Your task to perform on an android device: Search for Mexican restaurants on Maps Image 0: 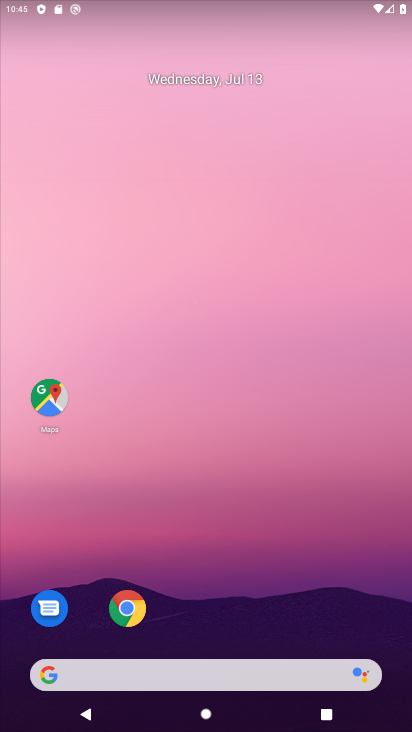
Step 0: drag from (241, 543) to (268, 224)
Your task to perform on an android device: Search for Mexican restaurants on Maps Image 1: 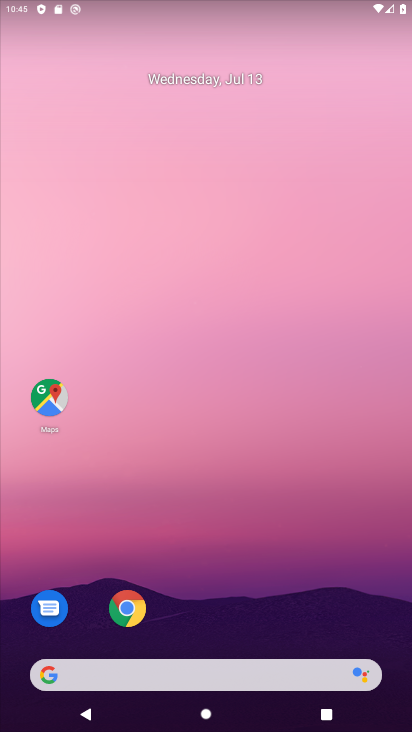
Step 1: drag from (224, 621) to (321, 114)
Your task to perform on an android device: Search for Mexican restaurants on Maps Image 2: 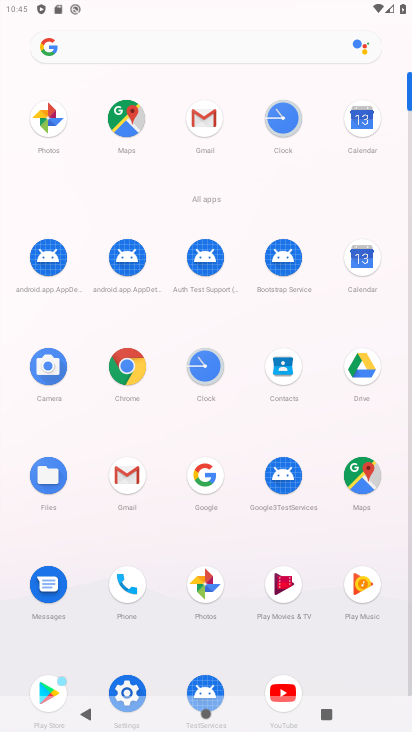
Step 2: click (364, 472)
Your task to perform on an android device: Search for Mexican restaurants on Maps Image 3: 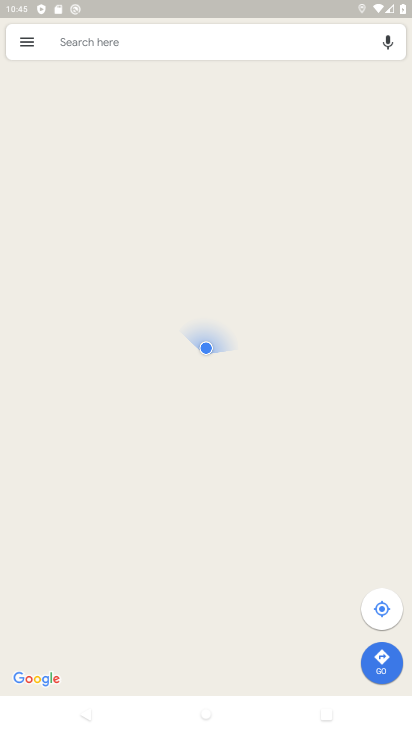
Step 3: click (100, 41)
Your task to perform on an android device: Search for Mexican restaurants on Maps Image 4: 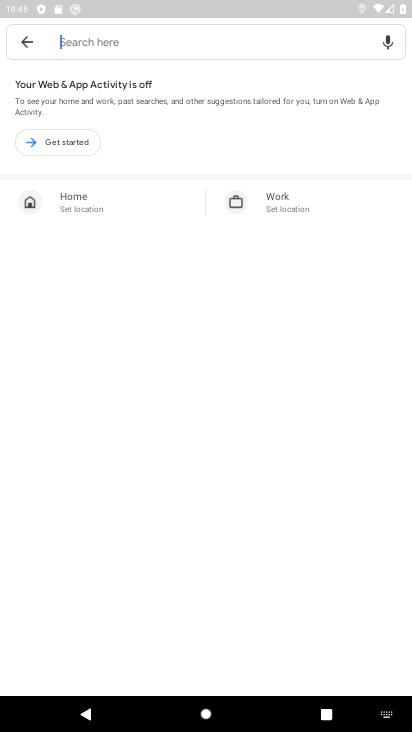
Step 4: type "Mexican restaurants"
Your task to perform on an android device: Search for Mexican restaurants on Maps Image 5: 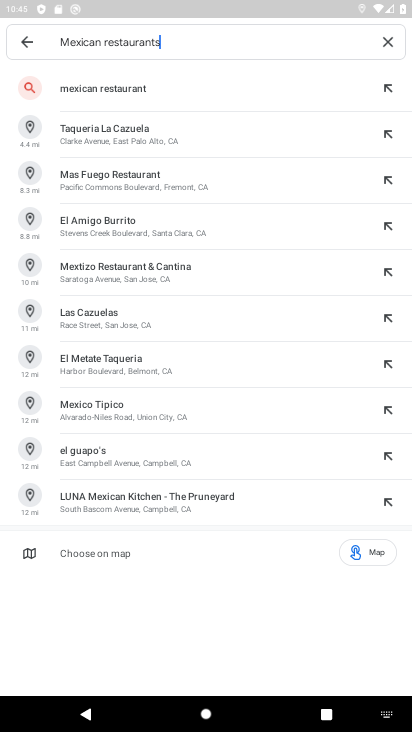
Step 5: click (170, 100)
Your task to perform on an android device: Search for Mexican restaurants on Maps Image 6: 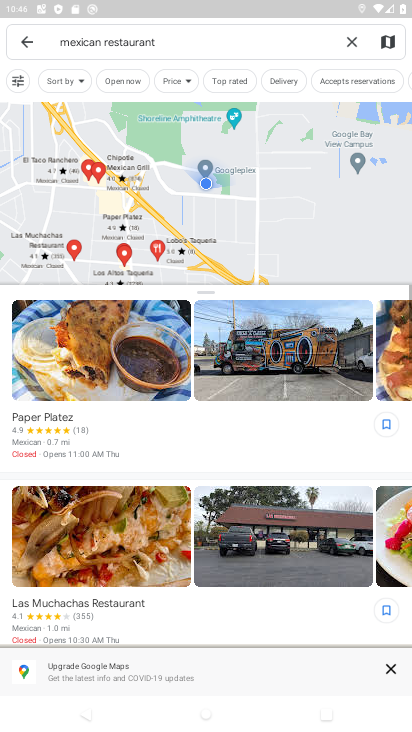
Step 6: task complete